Your task to perform on an android device: Go to CNN.com Image 0: 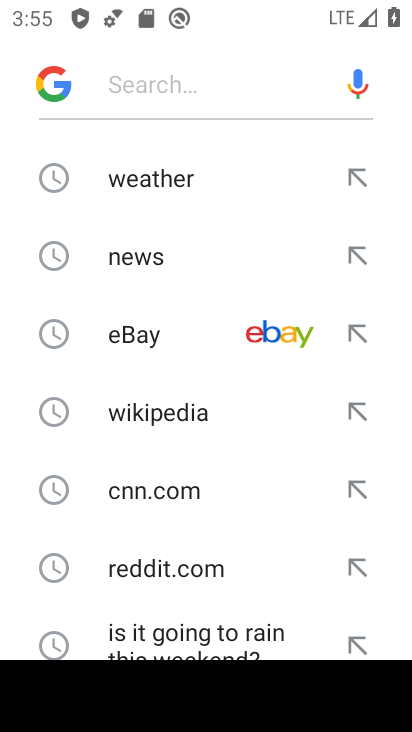
Step 0: click (170, 484)
Your task to perform on an android device: Go to CNN.com Image 1: 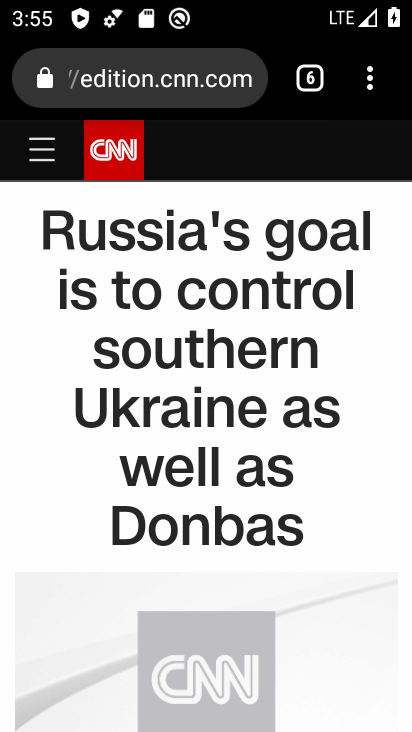
Step 1: task complete